Your task to perform on an android device: turn off wifi Image 0: 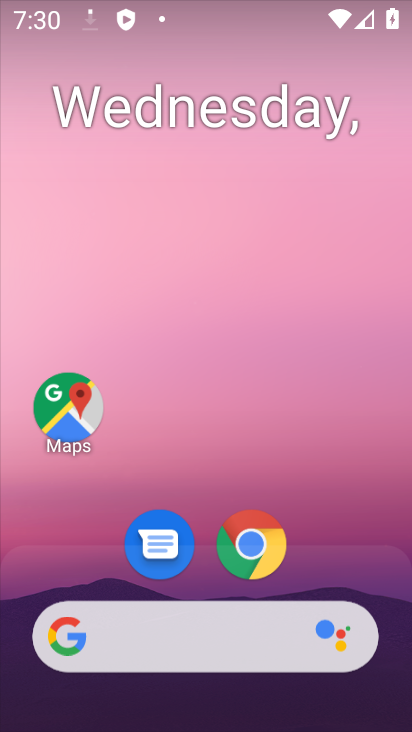
Step 0: drag from (199, 576) to (264, 103)
Your task to perform on an android device: turn off wifi Image 1: 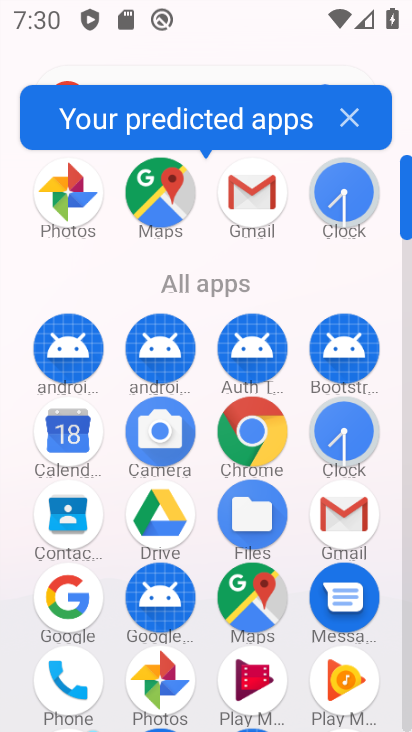
Step 1: drag from (206, 632) to (262, 232)
Your task to perform on an android device: turn off wifi Image 2: 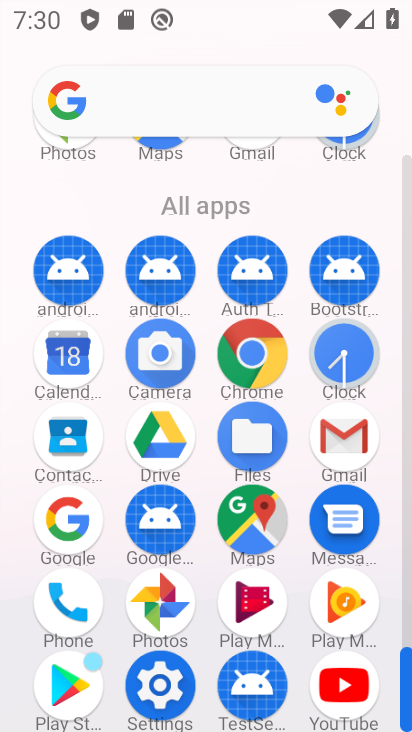
Step 2: click (169, 682)
Your task to perform on an android device: turn off wifi Image 3: 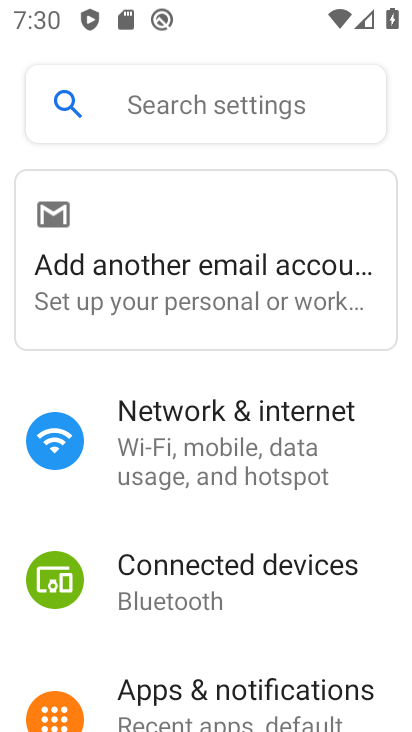
Step 3: click (186, 453)
Your task to perform on an android device: turn off wifi Image 4: 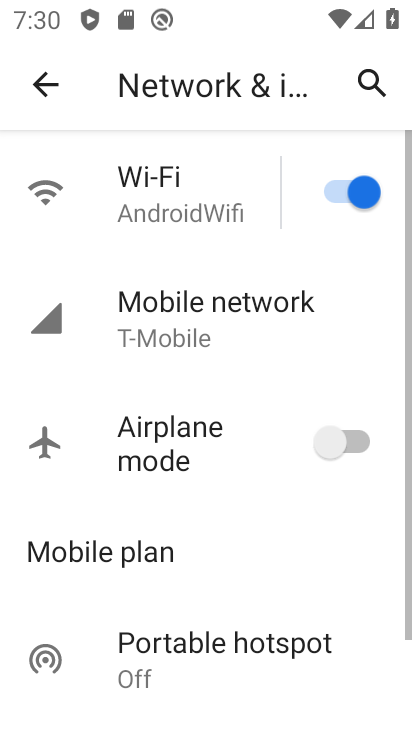
Step 4: click (357, 200)
Your task to perform on an android device: turn off wifi Image 5: 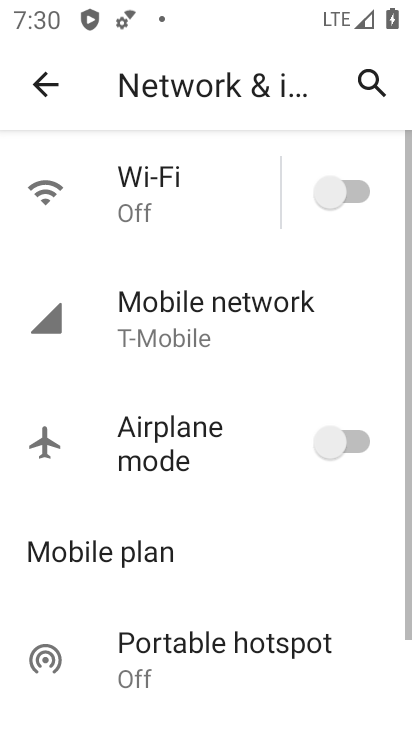
Step 5: task complete